Your task to perform on an android device: turn off javascript in the chrome app Image 0: 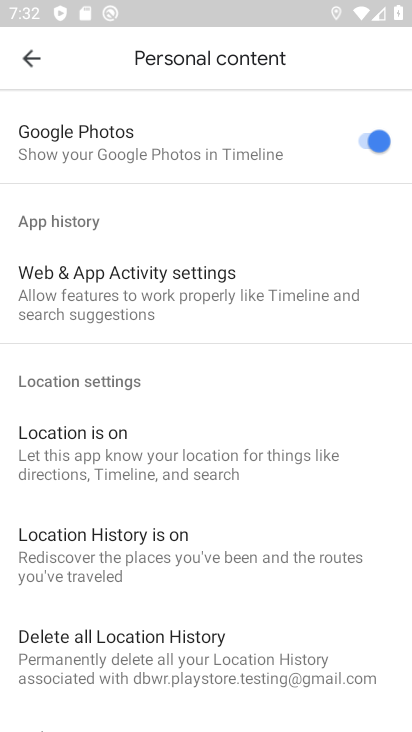
Step 0: press home button
Your task to perform on an android device: turn off javascript in the chrome app Image 1: 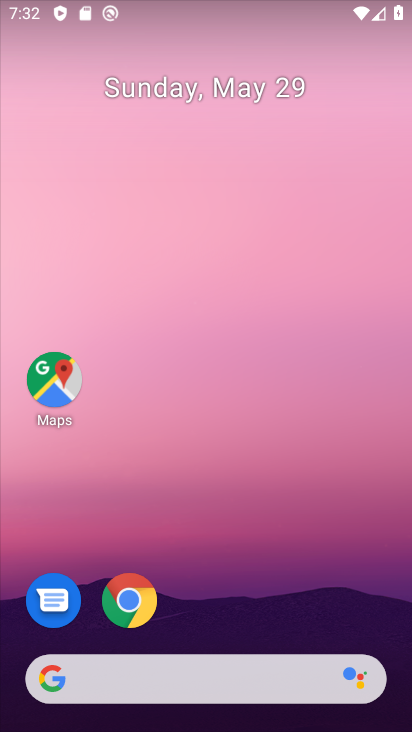
Step 1: click (147, 604)
Your task to perform on an android device: turn off javascript in the chrome app Image 2: 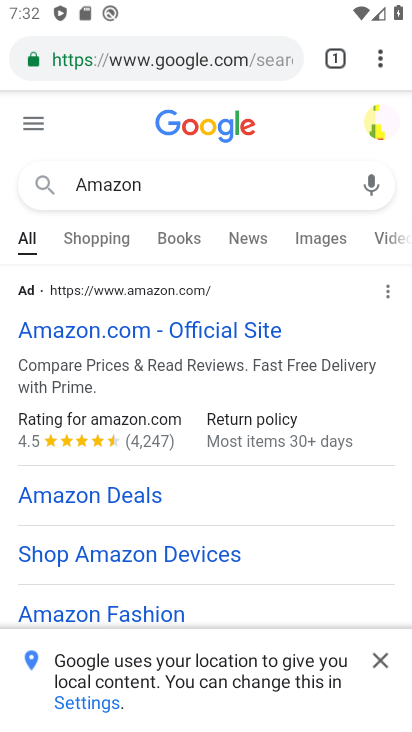
Step 2: click (385, 57)
Your task to perform on an android device: turn off javascript in the chrome app Image 3: 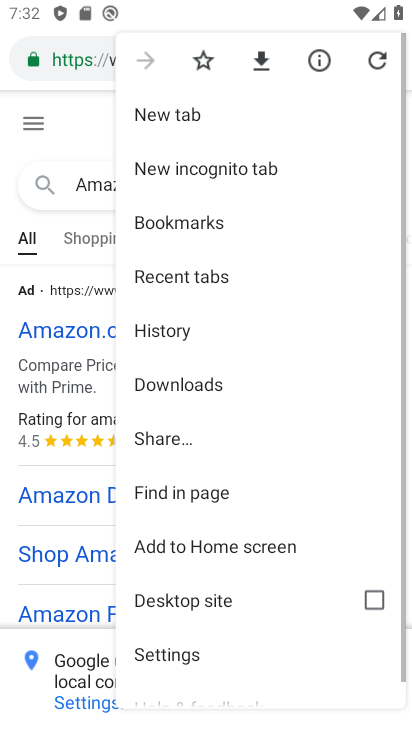
Step 3: drag from (191, 648) to (235, 262)
Your task to perform on an android device: turn off javascript in the chrome app Image 4: 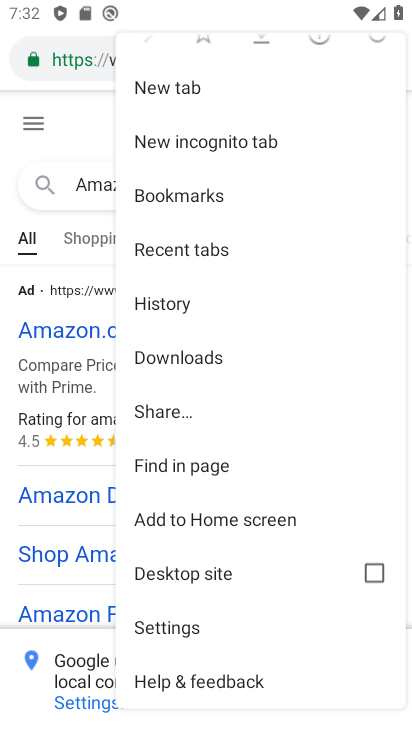
Step 4: click (187, 628)
Your task to perform on an android device: turn off javascript in the chrome app Image 5: 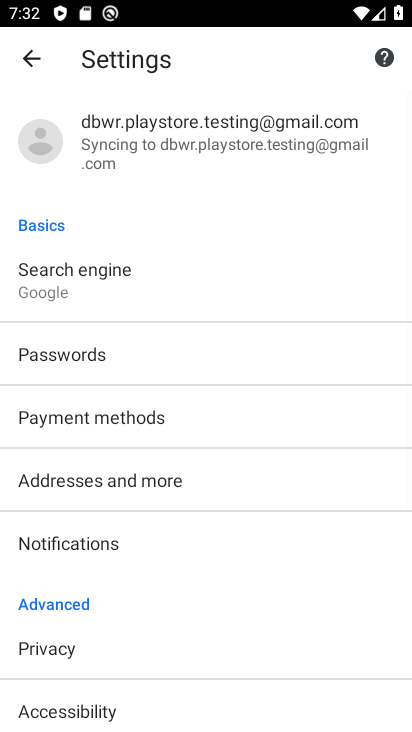
Step 5: drag from (148, 593) to (168, 354)
Your task to perform on an android device: turn off javascript in the chrome app Image 6: 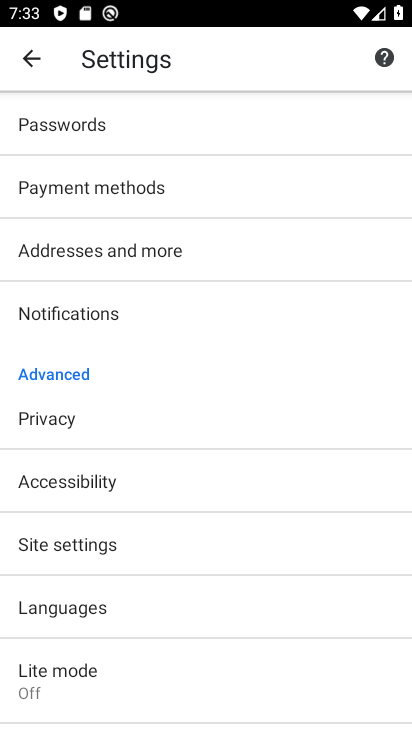
Step 6: drag from (108, 618) to (110, 577)
Your task to perform on an android device: turn off javascript in the chrome app Image 7: 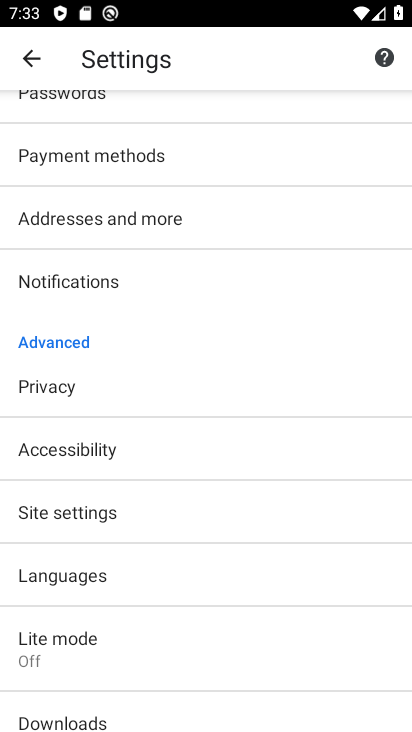
Step 7: click (98, 513)
Your task to perform on an android device: turn off javascript in the chrome app Image 8: 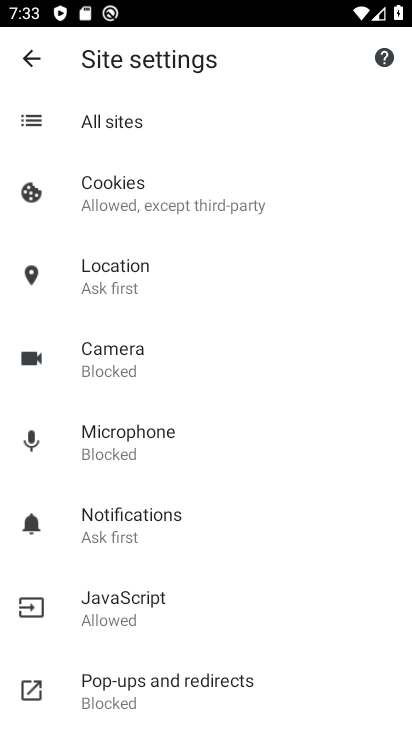
Step 8: click (131, 612)
Your task to perform on an android device: turn off javascript in the chrome app Image 9: 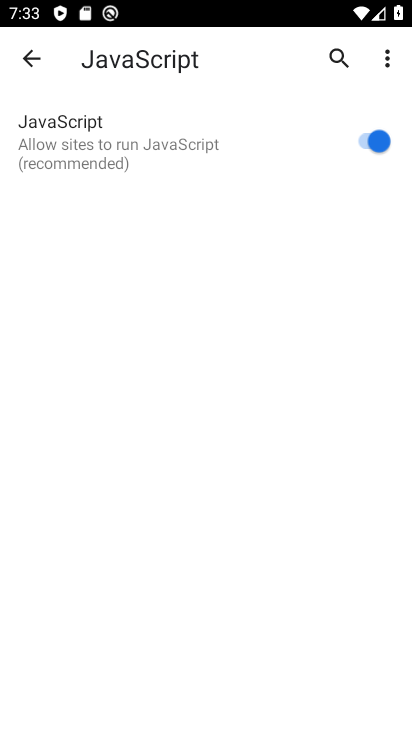
Step 9: click (340, 132)
Your task to perform on an android device: turn off javascript in the chrome app Image 10: 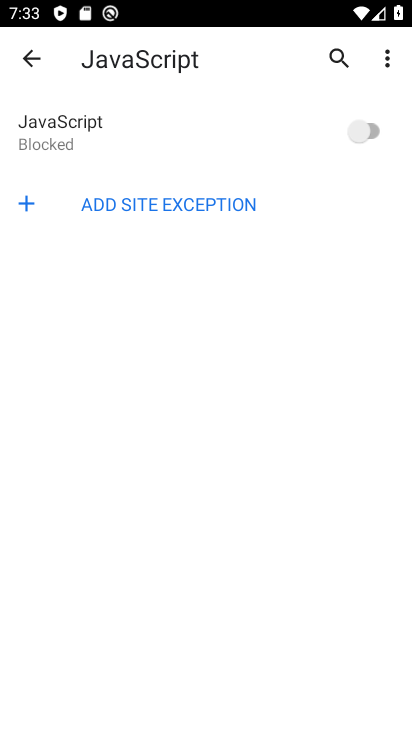
Step 10: task complete